Your task to perform on an android device: delete browsing data in the chrome app Image 0: 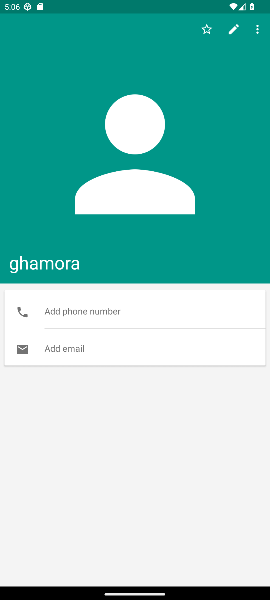
Step 0: press home button
Your task to perform on an android device: delete browsing data in the chrome app Image 1: 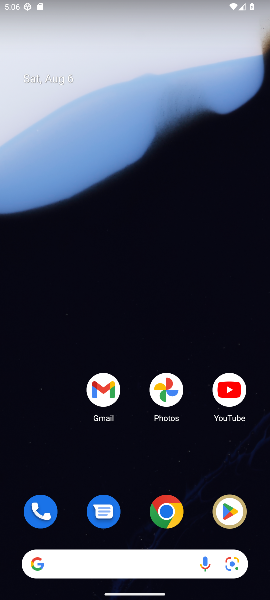
Step 1: click (177, 517)
Your task to perform on an android device: delete browsing data in the chrome app Image 2: 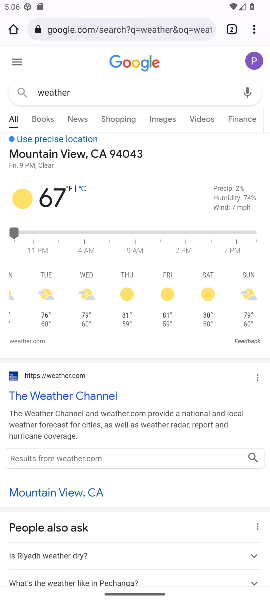
Step 2: click (254, 29)
Your task to perform on an android device: delete browsing data in the chrome app Image 3: 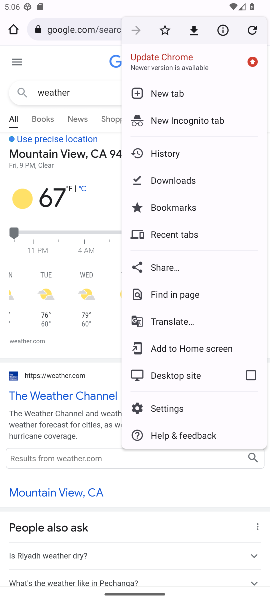
Step 3: click (180, 153)
Your task to perform on an android device: delete browsing data in the chrome app Image 4: 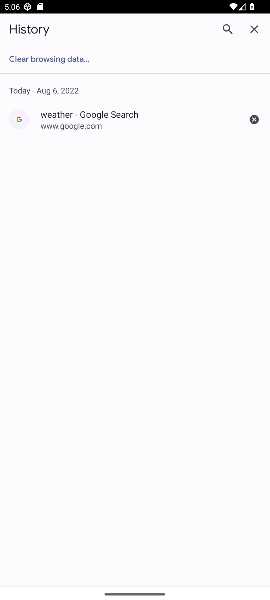
Step 4: click (47, 60)
Your task to perform on an android device: delete browsing data in the chrome app Image 5: 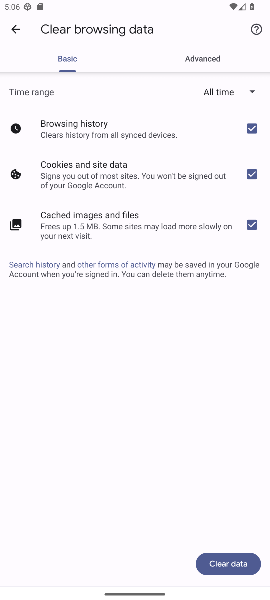
Step 5: click (229, 561)
Your task to perform on an android device: delete browsing data in the chrome app Image 6: 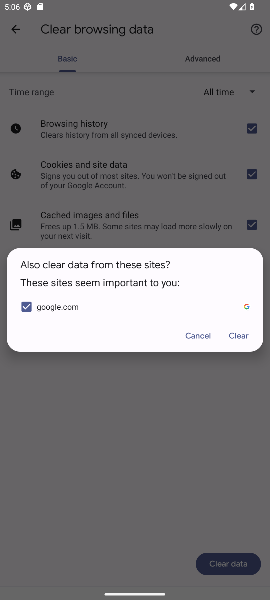
Step 6: click (241, 333)
Your task to perform on an android device: delete browsing data in the chrome app Image 7: 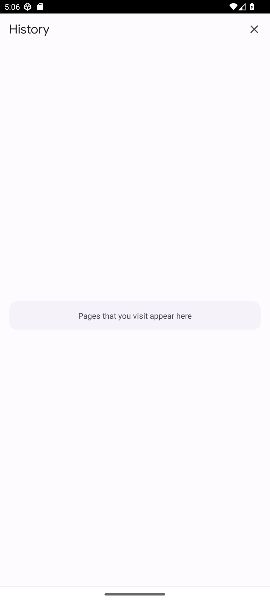
Step 7: task complete